Your task to perform on an android device: Search for seafood restaurants on Google Maps Image 0: 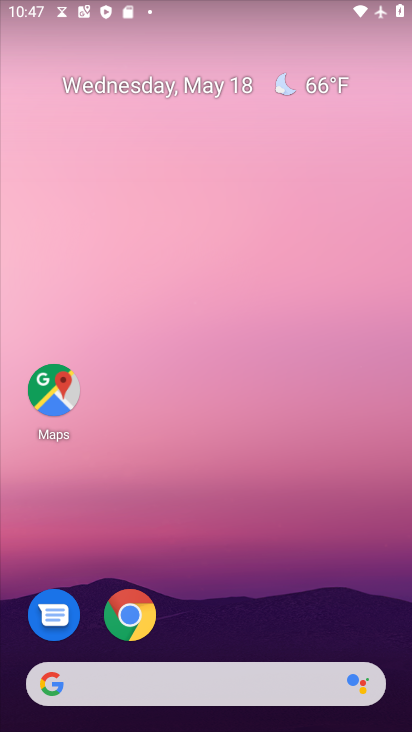
Step 0: drag from (249, 590) to (251, 23)
Your task to perform on an android device: Search for seafood restaurants on Google Maps Image 1: 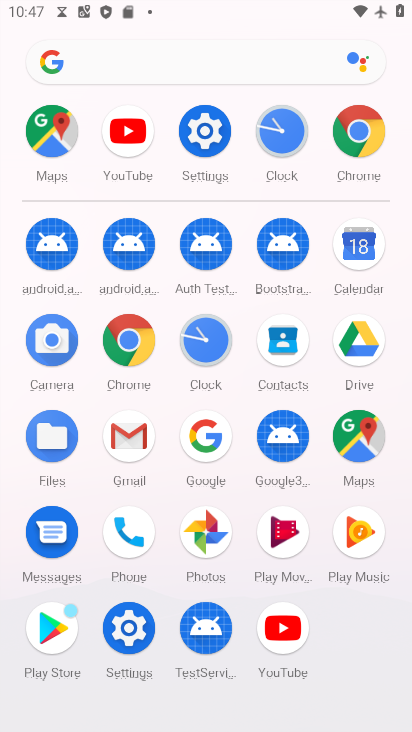
Step 1: drag from (9, 563) to (3, 278)
Your task to perform on an android device: Search for seafood restaurants on Google Maps Image 2: 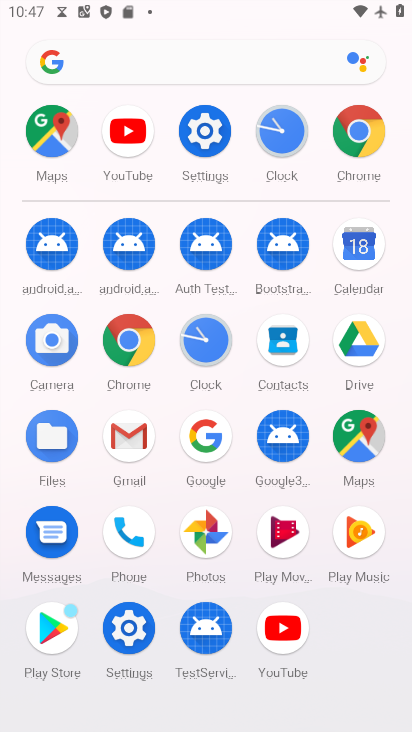
Step 2: click (359, 433)
Your task to perform on an android device: Search for seafood restaurants on Google Maps Image 3: 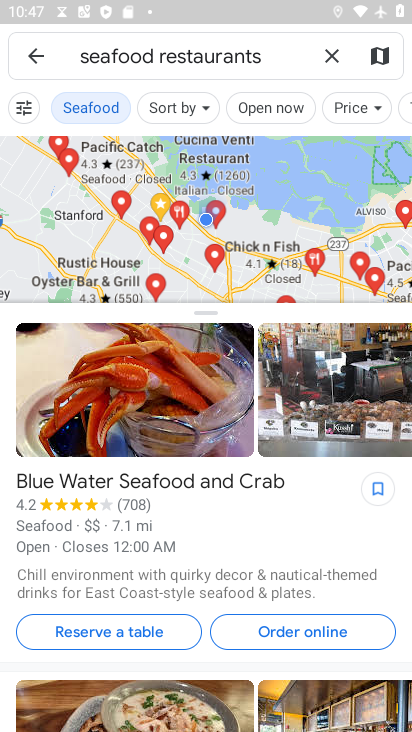
Step 3: task complete